Your task to perform on an android device: uninstall "Adobe Acrobat Reader: Edit PDF" Image 0: 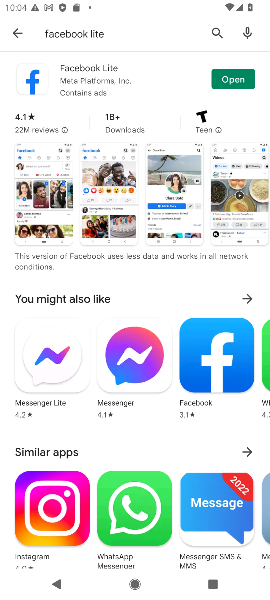
Step 0: press home button
Your task to perform on an android device: uninstall "Adobe Acrobat Reader: Edit PDF" Image 1: 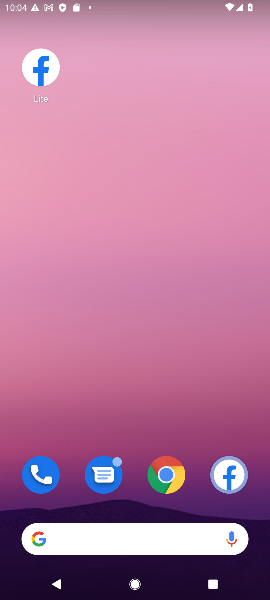
Step 1: drag from (119, 509) to (40, 5)
Your task to perform on an android device: uninstall "Adobe Acrobat Reader: Edit PDF" Image 2: 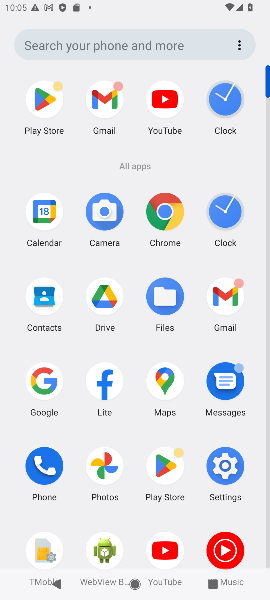
Step 2: click (164, 468)
Your task to perform on an android device: uninstall "Adobe Acrobat Reader: Edit PDF" Image 3: 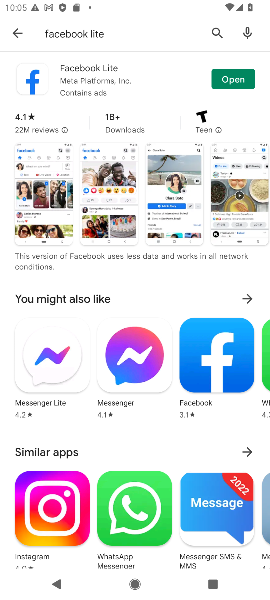
Step 3: click (9, 34)
Your task to perform on an android device: uninstall "Adobe Acrobat Reader: Edit PDF" Image 4: 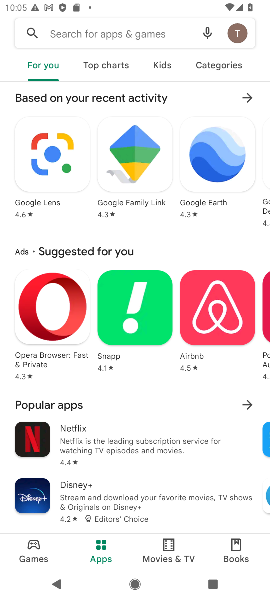
Step 4: click (67, 40)
Your task to perform on an android device: uninstall "Adobe Acrobat Reader: Edit PDF" Image 5: 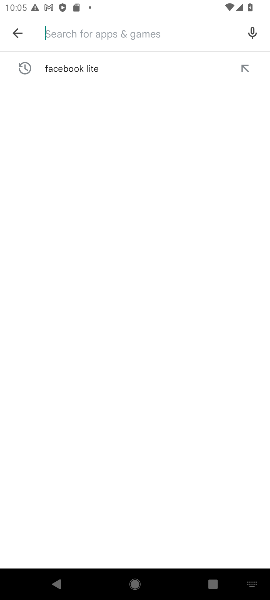
Step 5: type "Adobe Acrobat Reader: Edit PD"
Your task to perform on an android device: uninstall "Adobe Acrobat Reader: Edit PDF" Image 6: 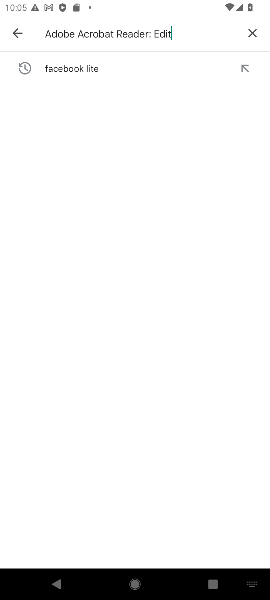
Step 6: type ""
Your task to perform on an android device: uninstall "Adobe Acrobat Reader: Edit PDF" Image 7: 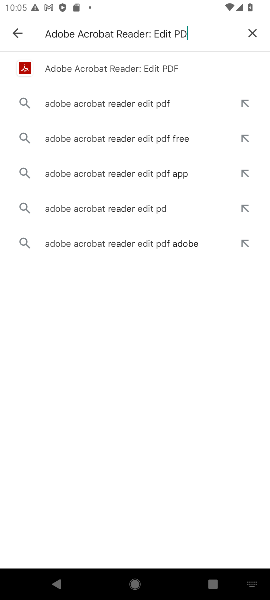
Step 7: click (59, 68)
Your task to perform on an android device: uninstall "Adobe Acrobat Reader: Edit PDF" Image 8: 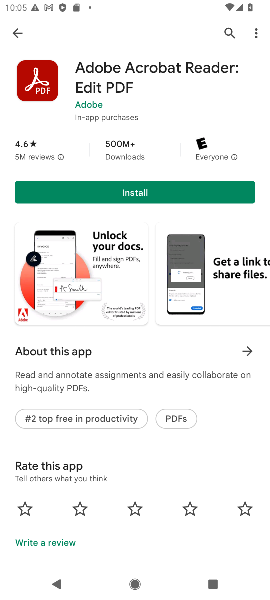
Step 8: task complete